Your task to perform on an android device: change the clock style Image 0: 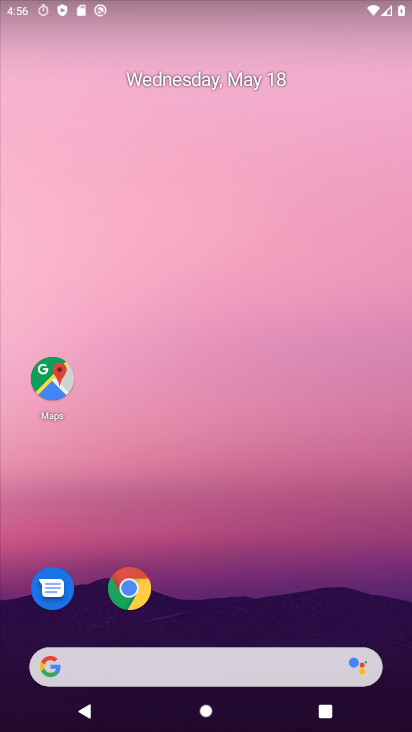
Step 0: drag from (227, 607) to (251, 80)
Your task to perform on an android device: change the clock style Image 1: 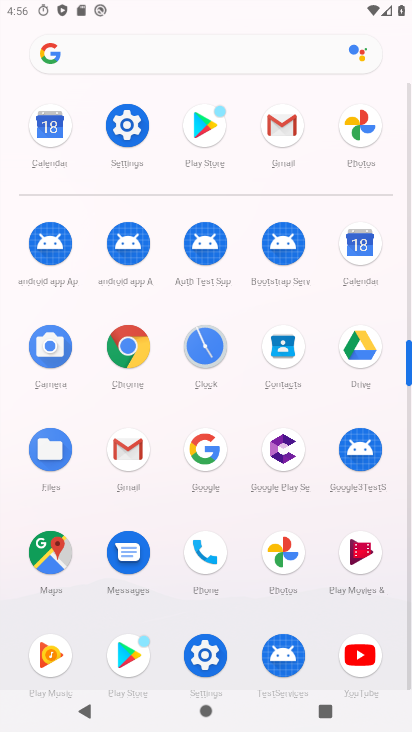
Step 1: click (196, 339)
Your task to perform on an android device: change the clock style Image 2: 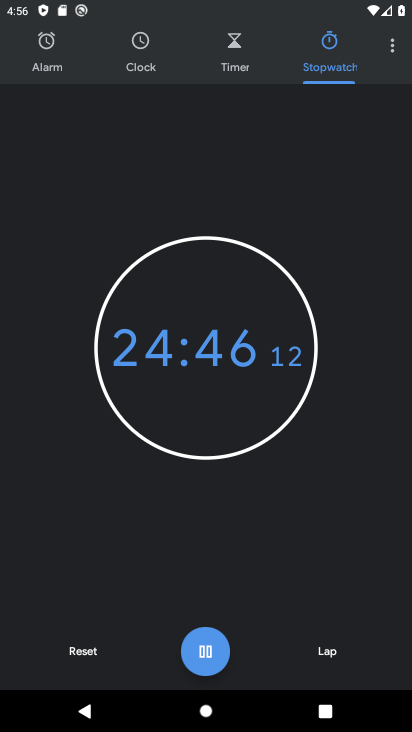
Step 2: click (393, 43)
Your task to perform on an android device: change the clock style Image 3: 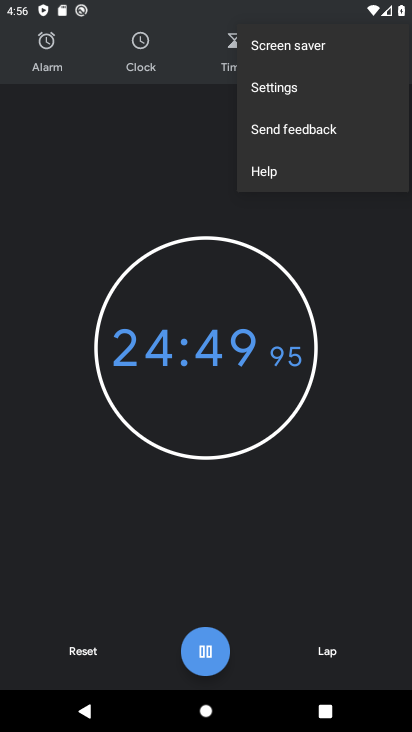
Step 3: click (270, 92)
Your task to perform on an android device: change the clock style Image 4: 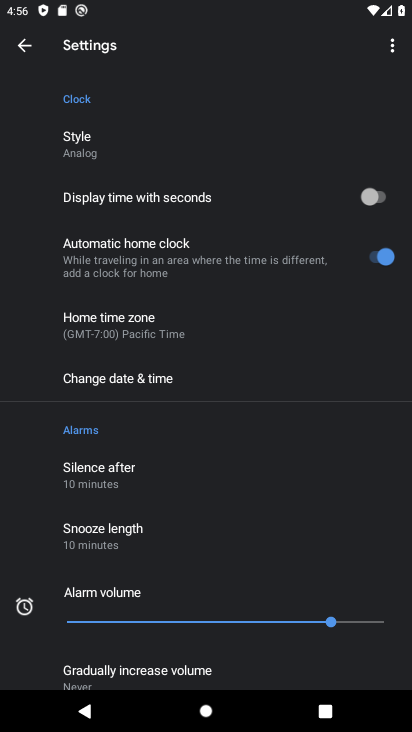
Step 4: click (74, 131)
Your task to perform on an android device: change the clock style Image 5: 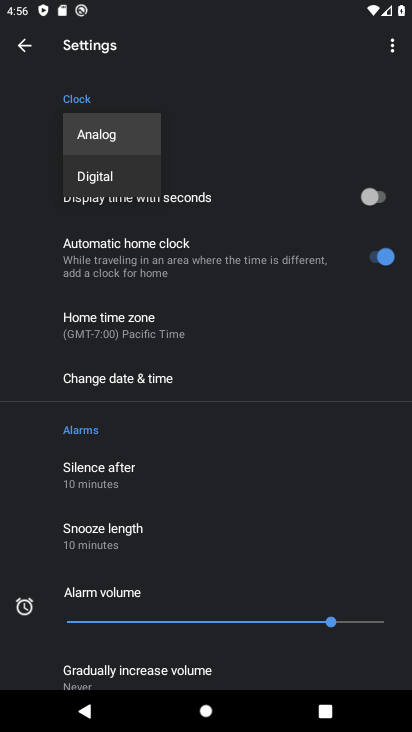
Step 5: click (111, 177)
Your task to perform on an android device: change the clock style Image 6: 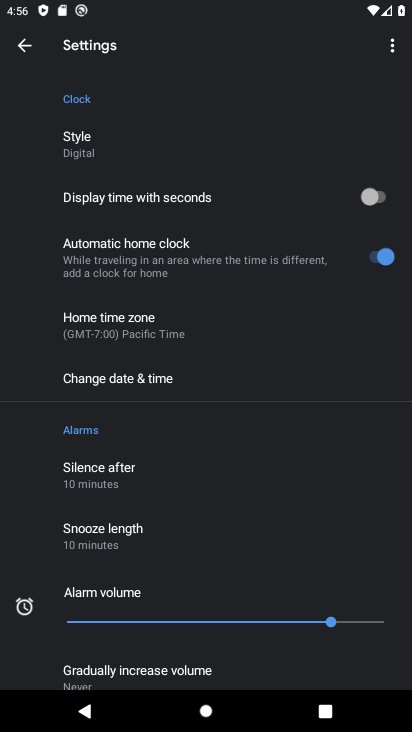
Step 6: task complete